Your task to perform on an android device: Open the web browser Image 0: 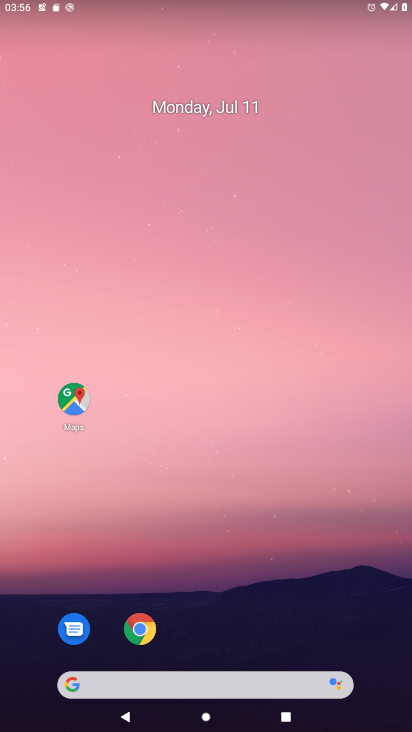
Step 0: click (151, 629)
Your task to perform on an android device: Open the web browser Image 1: 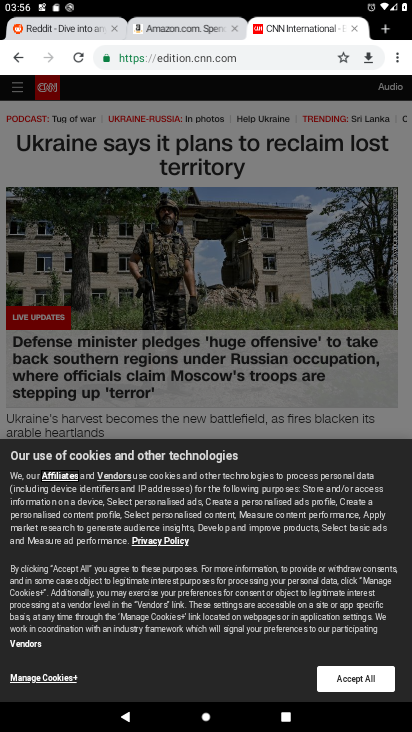
Step 1: task complete